Your task to perform on an android device: Go to display settings Image 0: 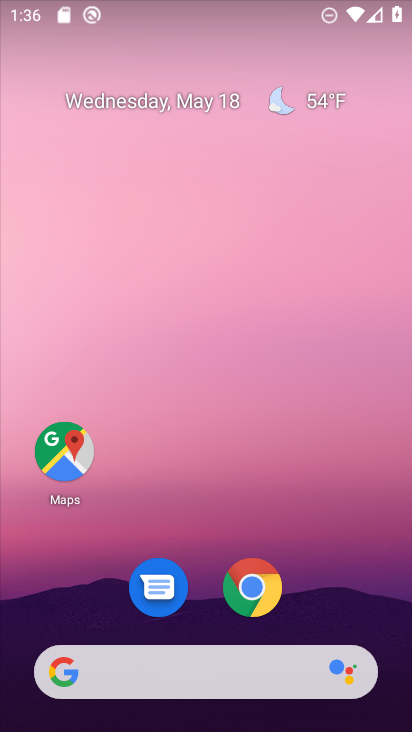
Step 0: drag from (71, 634) to (256, 158)
Your task to perform on an android device: Go to display settings Image 1: 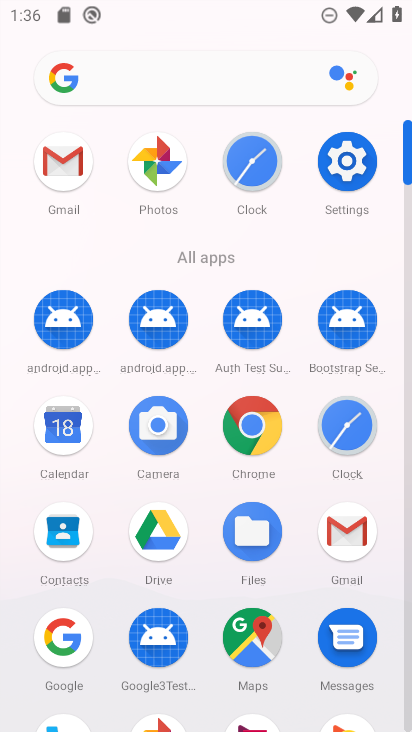
Step 1: drag from (213, 647) to (298, 398)
Your task to perform on an android device: Go to display settings Image 2: 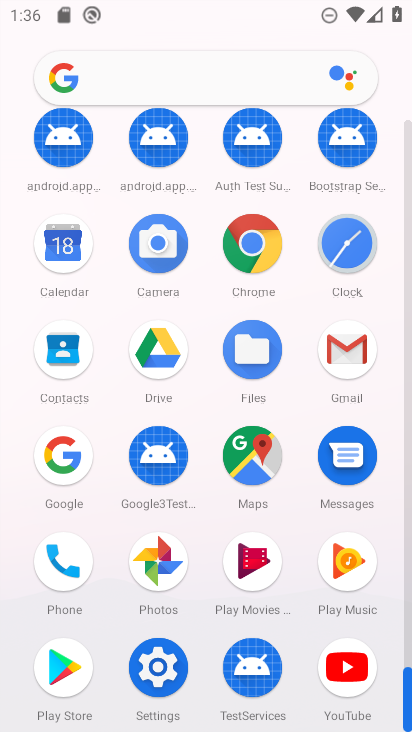
Step 2: click (172, 666)
Your task to perform on an android device: Go to display settings Image 3: 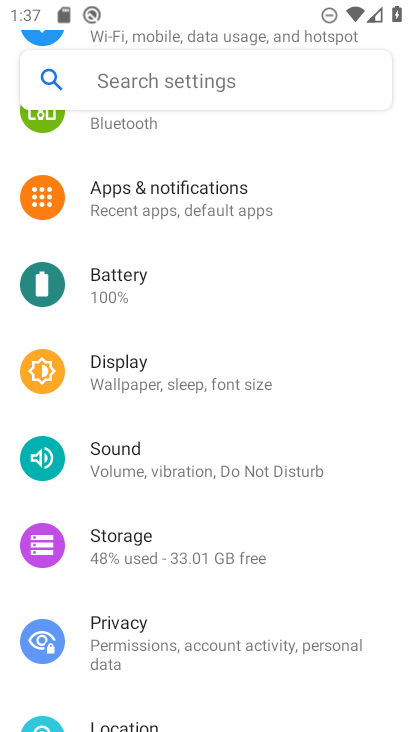
Step 3: click (196, 394)
Your task to perform on an android device: Go to display settings Image 4: 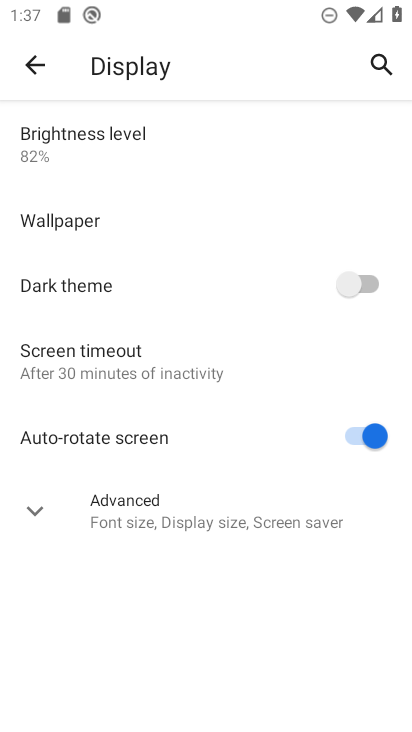
Step 4: task complete